Your task to perform on an android device: toggle translation in the chrome app Image 0: 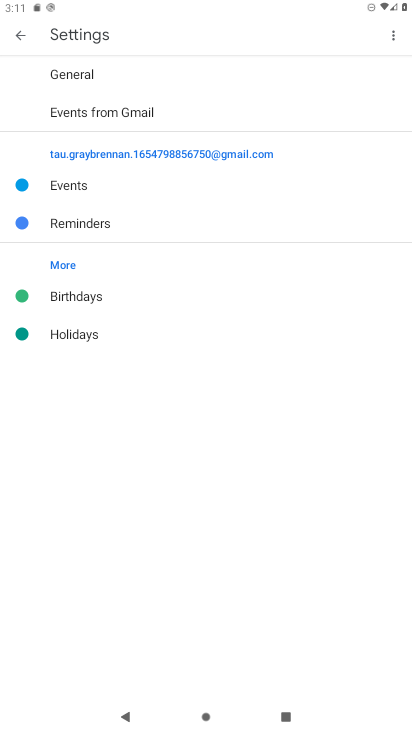
Step 0: press home button
Your task to perform on an android device: toggle translation in the chrome app Image 1: 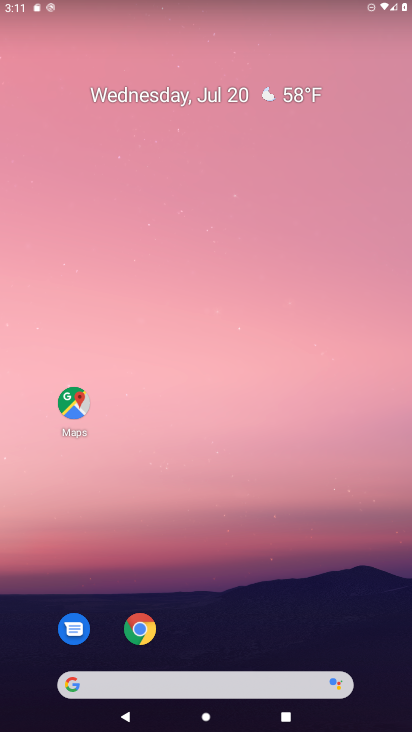
Step 1: drag from (266, 574) to (280, 43)
Your task to perform on an android device: toggle translation in the chrome app Image 2: 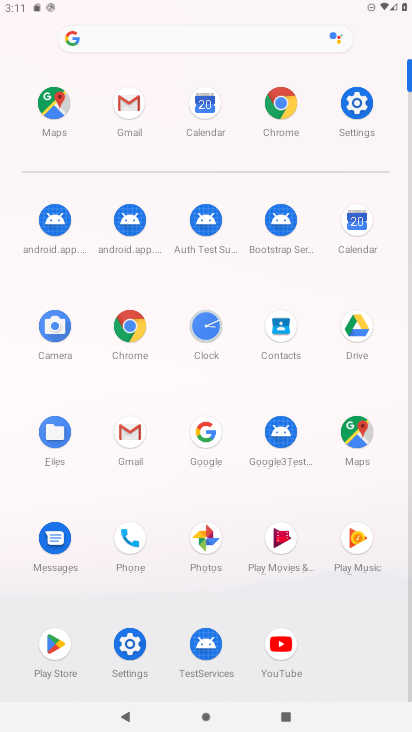
Step 2: click (123, 319)
Your task to perform on an android device: toggle translation in the chrome app Image 3: 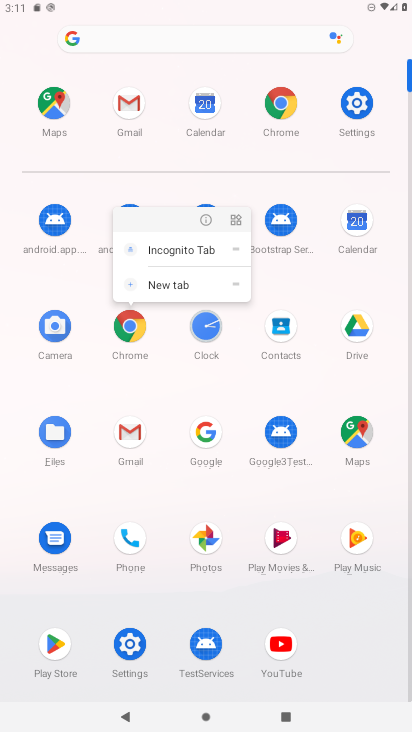
Step 3: click (123, 319)
Your task to perform on an android device: toggle translation in the chrome app Image 4: 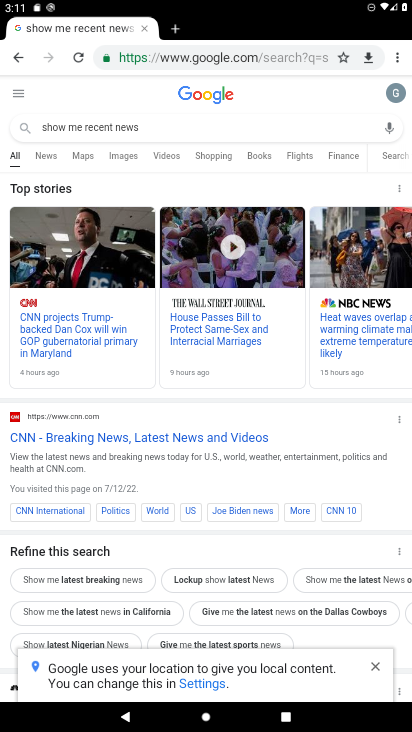
Step 4: drag from (393, 50) to (292, 352)
Your task to perform on an android device: toggle translation in the chrome app Image 5: 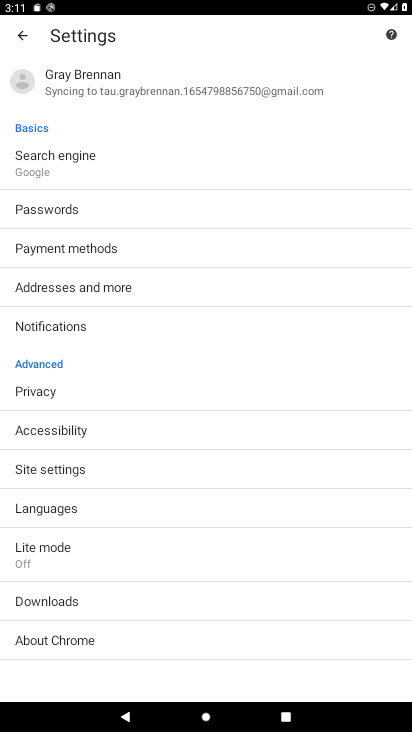
Step 5: click (41, 500)
Your task to perform on an android device: toggle translation in the chrome app Image 6: 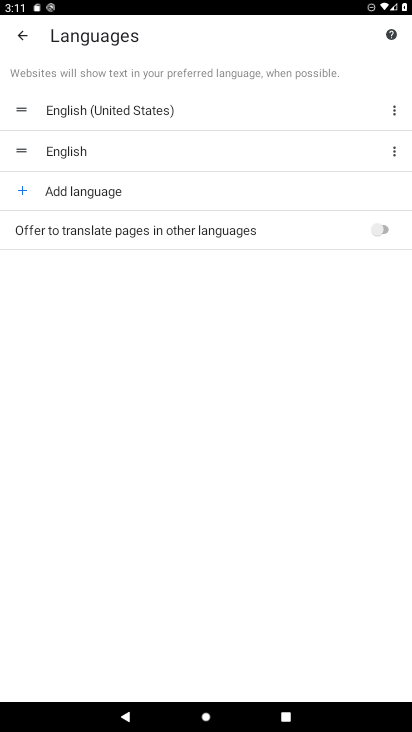
Step 6: click (345, 230)
Your task to perform on an android device: toggle translation in the chrome app Image 7: 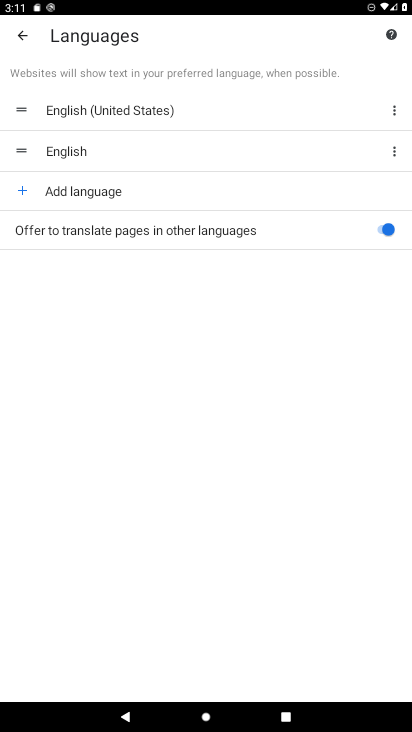
Step 7: task complete